Your task to perform on an android device: set the timer Image 0: 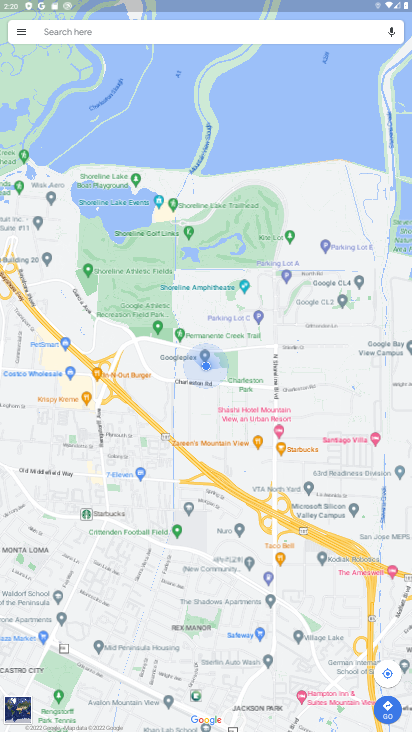
Step 0: press home button
Your task to perform on an android device: set the timer Image 1: 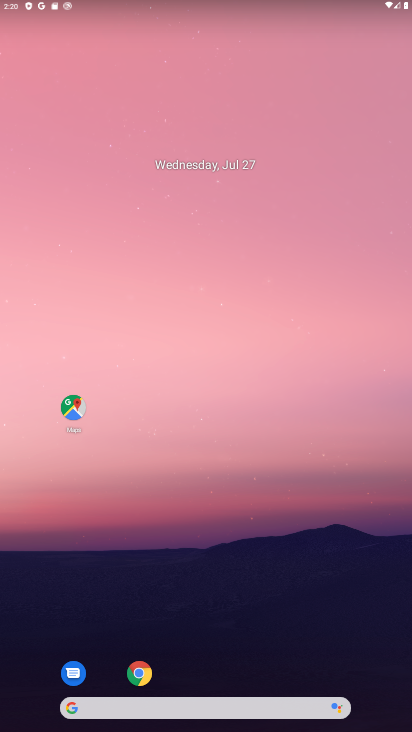
Step 1: drag from (127, 726) to (310, 37)
Your task to perform on an android device: set the timer Image 2: 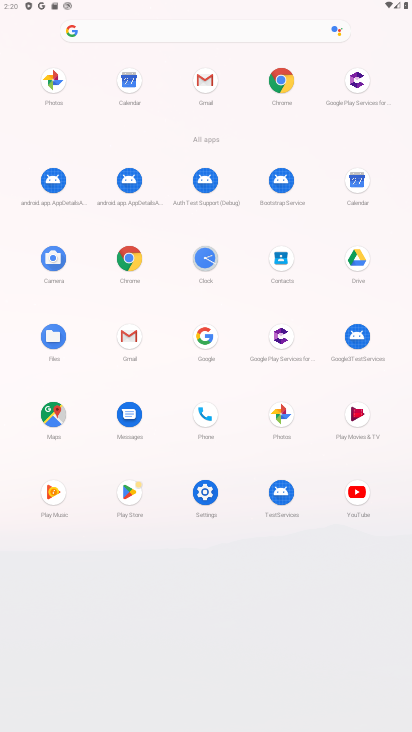
Step 2: click (191, 267)
Your task to perform on an android device: set the timer Image 3: 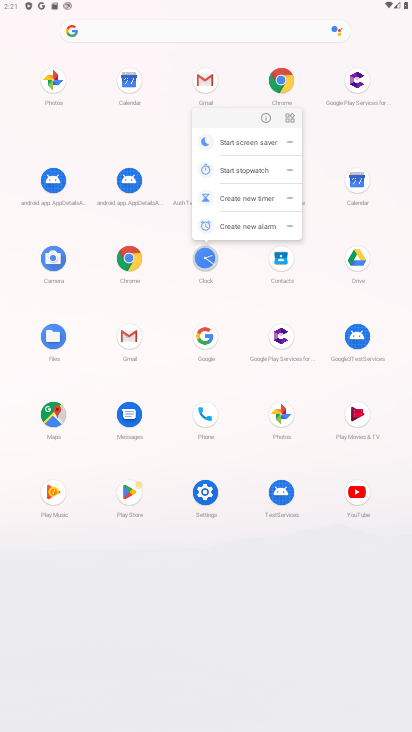
Step 3: click (196, 268)
Your task to perform on an android device: set the timer Image 4: 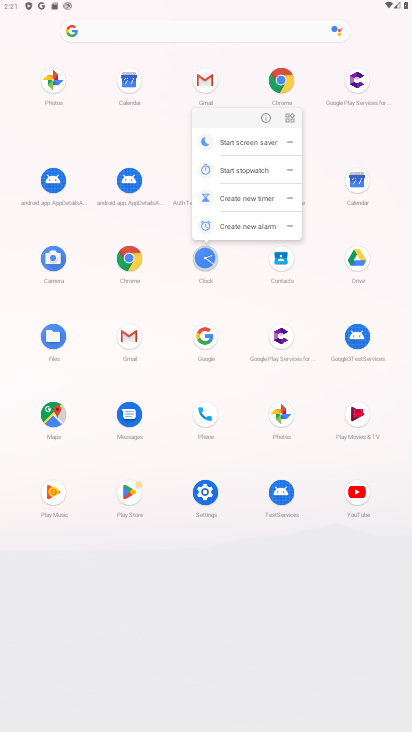
Step 4: click (196, 268)
Your task to perform on an android device: set the timer Image 5: 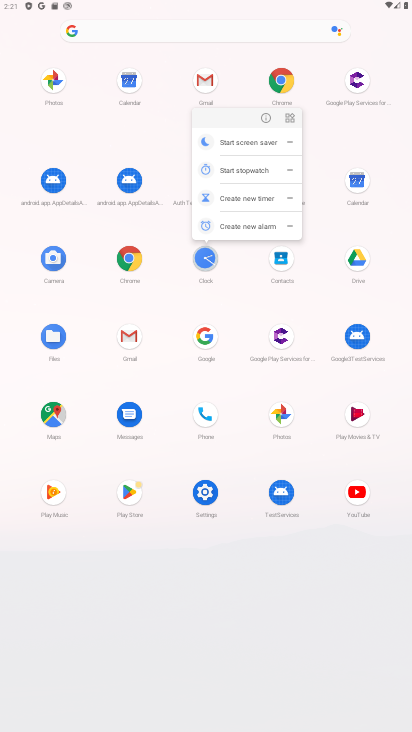
Step 5: click (196, 268)
Your task to perform on an android device: set the timer Image 6: 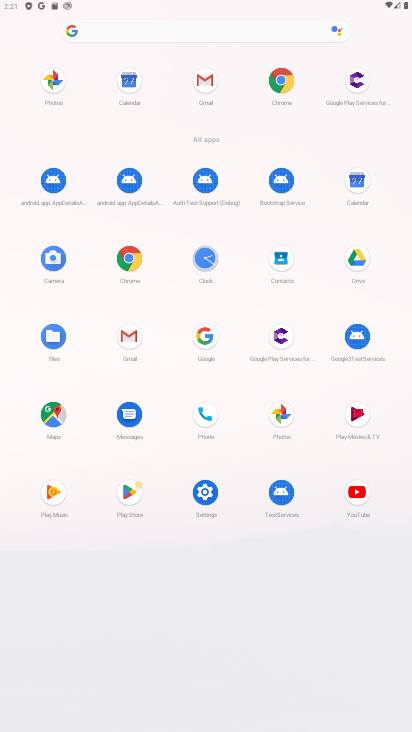
Step 6: click (196, 268)
Your task to perform on an android device: set the timer Image 7: 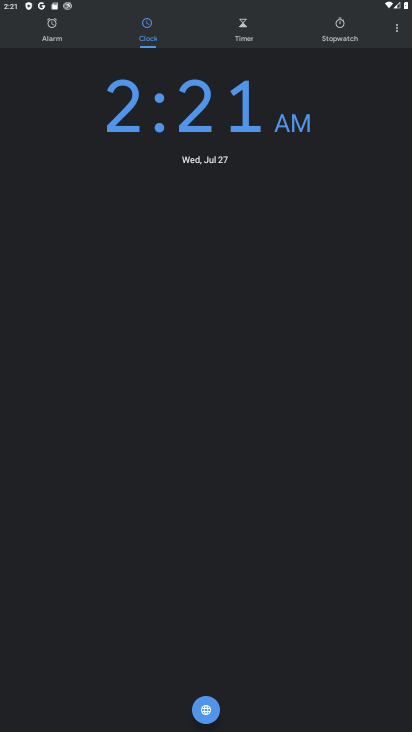
Step 7: click (247, 36)
Your task to perform on an android device: set the timer Image 8: 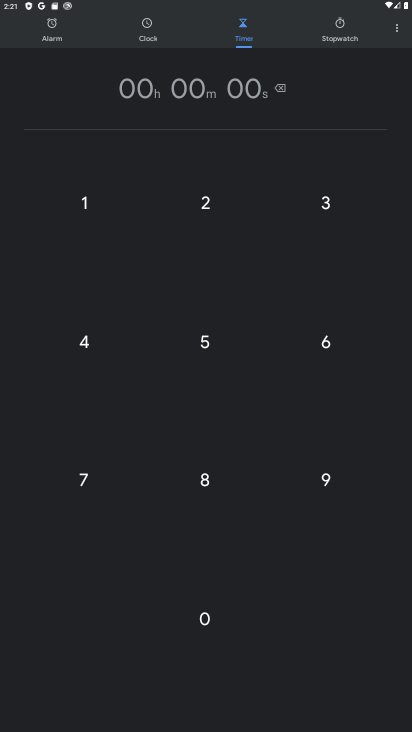
Step 8: click (199, 342)
Your task to perform on an android device: set the timer Image 9: 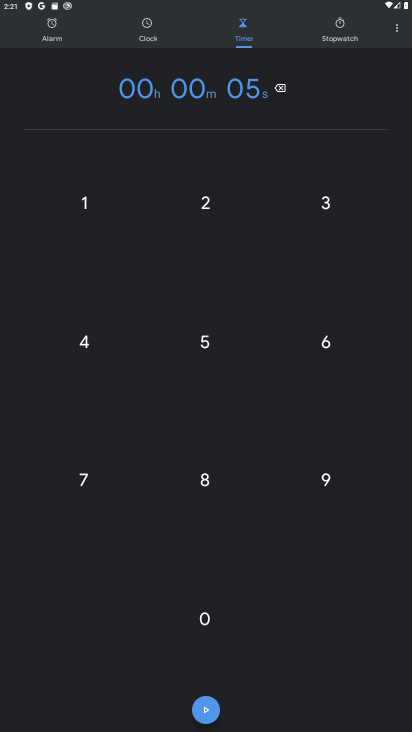
Step 9: click (290, 458)
Your task to perform on an android device: set the timer Image 10: 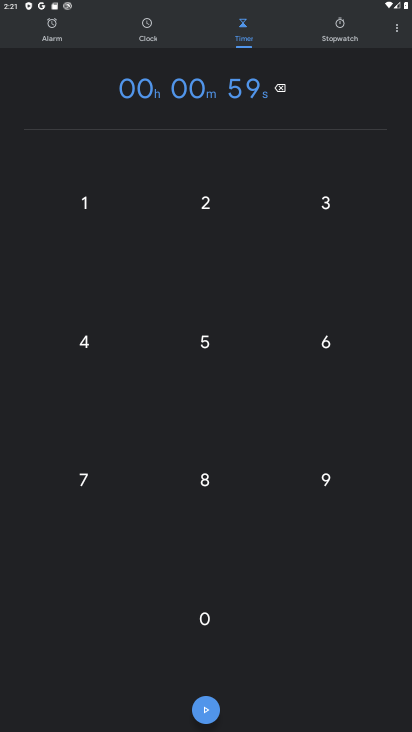
Step 10: click (23, 415)
Your task to perform on an android device: set the timer Image 11: 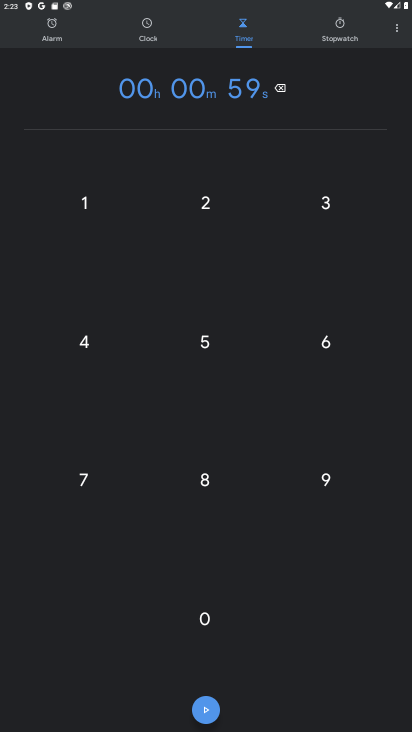
Step 11: click (219, 337)
Your task to perform on an android device: set the timer Image 12: 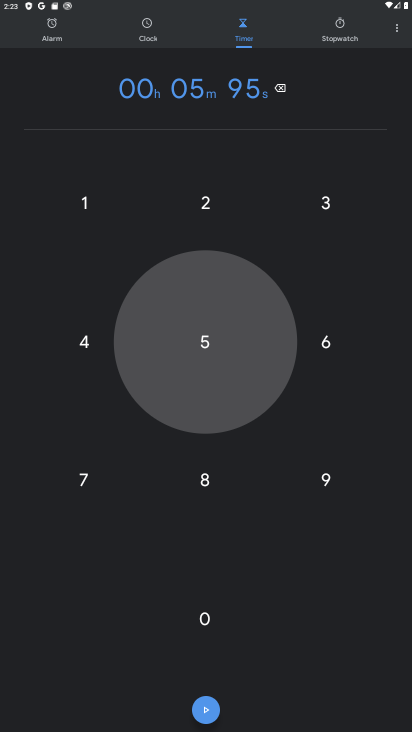
Step 12: click (252, 454)
Your task to perform on an android device: set the timer Image 13: 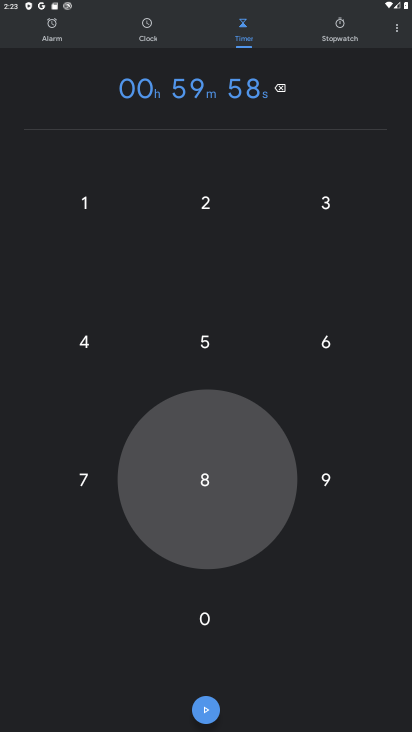
Step 13: click (283, 306)
Your task to perform on an android device: set the timer Image 14: 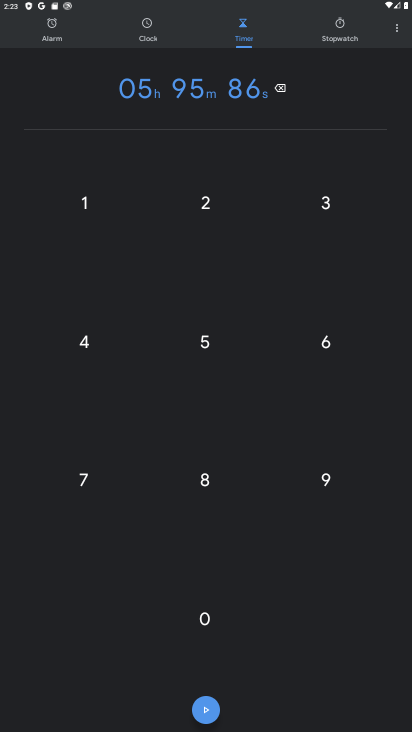
Step 14: task complete